Your task to perform on an android device: read, delete, or share a saved page in the chrome app Image 0: 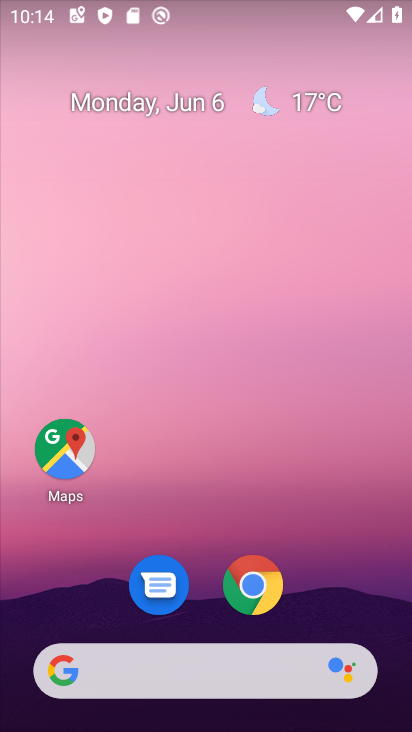
Step 0: drag from (212, 414) to (190, 24)
Your task to perform on an android device: read, delete, or share a saved page in the chrome app Image 1: 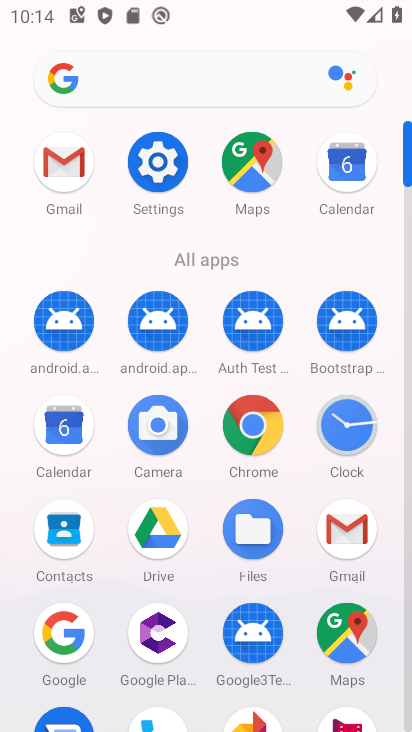
Step 1: task complete